Your task to perform on an android device: Open Chrome and go to settings Image 0: 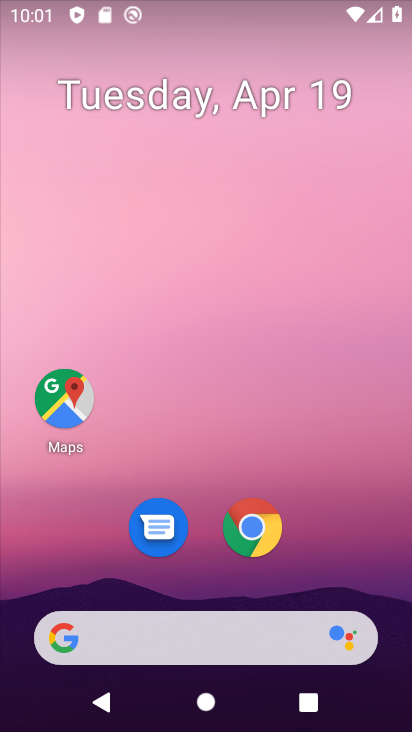
Step 0: click (253, 534)
Your task to perform on an android device: Open Chrome and go to settings Image 1: 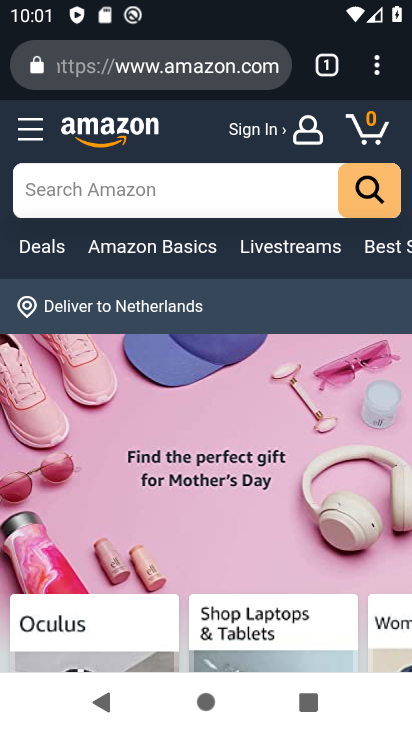
Step 1: task complete